Your task to perform on an android device: empty trash in google photos Image 0: 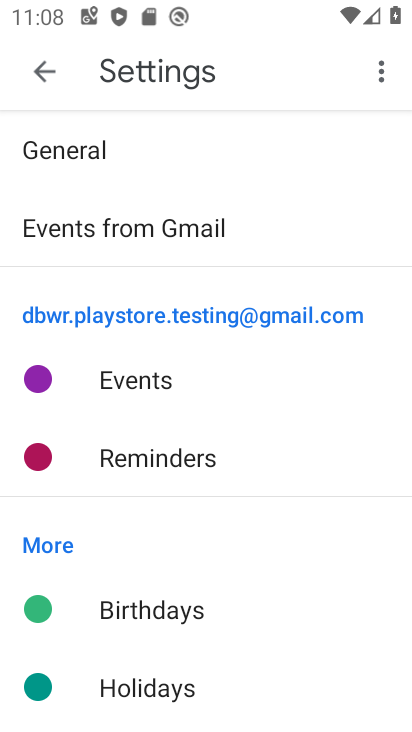
Step 0: press back button
Your task to perform on an android device: empty trash in google photos Image 1: 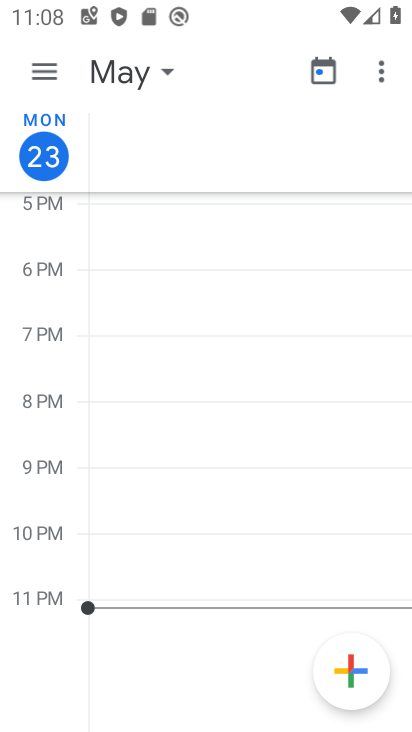
Step 1: press home button
Your task to perform on an android device: empty trash in google photos Image 2: 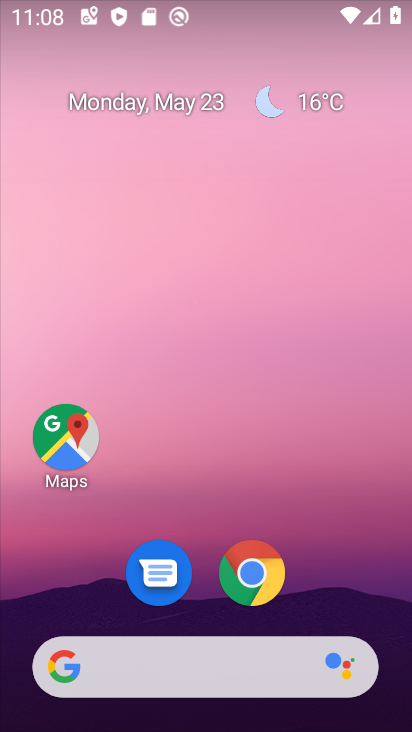
Step 2: drag from (328, 573) to (242, 1)
Your task to perform on an android device: empty trash in google photos Image 3: 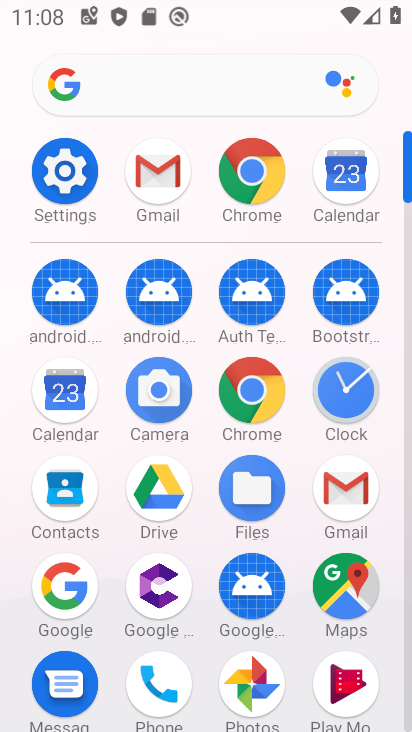
Step 3: drag from (6, 543) to (11, 152)
Your task to perform on an android device: empty trash in google photos Image 4: 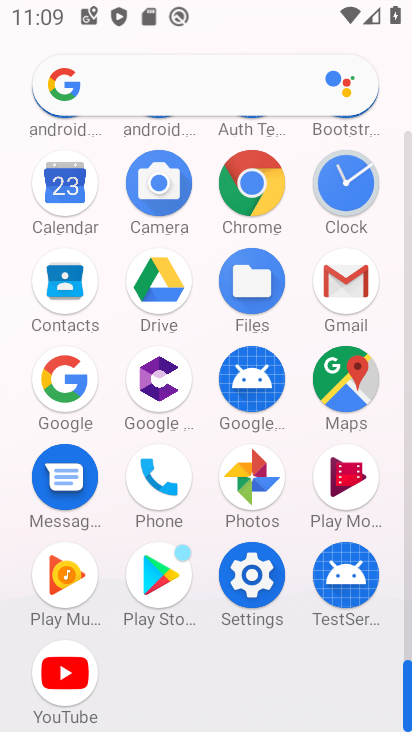
Step 4: click (255, 482)
Your task to perform on an android device: empty trash in google photos Image 5: 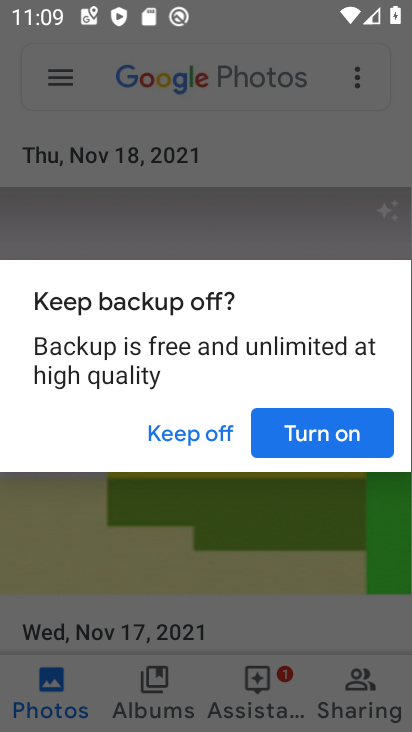
Step 5: click (285, 427)
Your task to perform on an android device: empty trash in google photos Image 6: 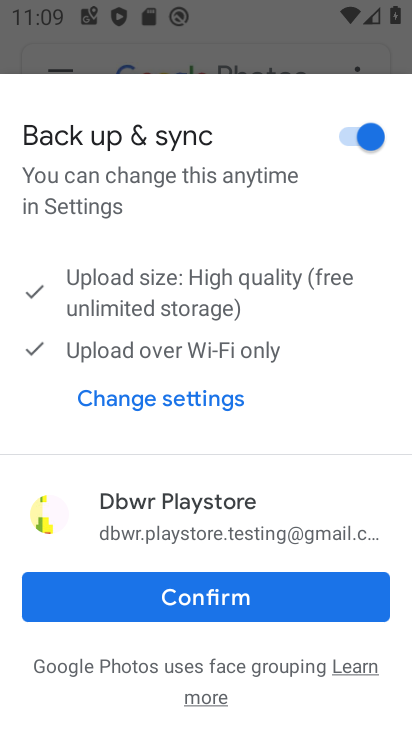
Step 6: click (277, 576)
Your task to perform on an android device: empty trash in google photos Image 7: 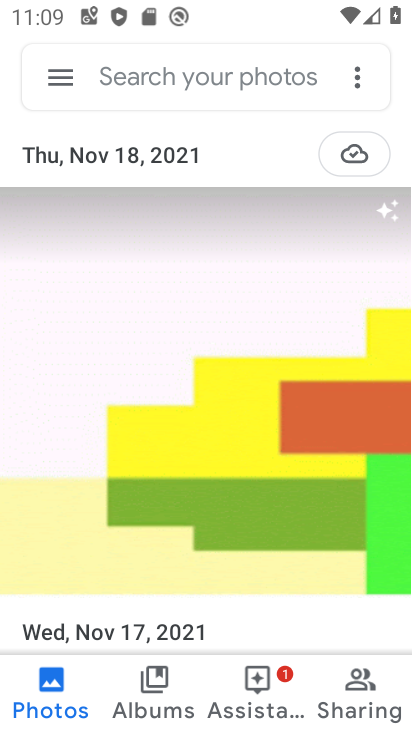
Step 7: click (58, 92)
Your task to perform on an android device: empty trash in google photos Image 8: 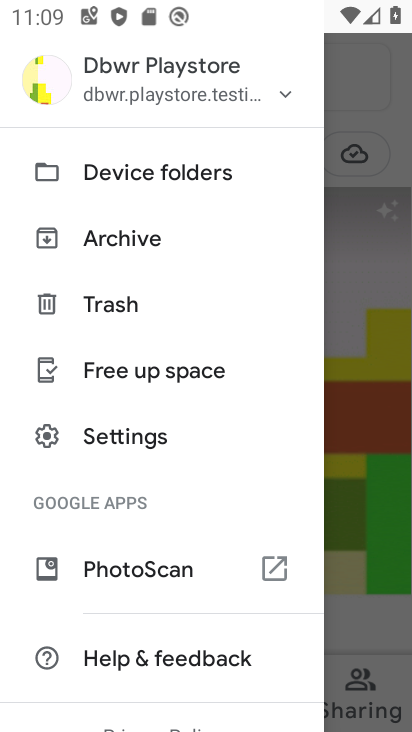
Step 8: click (133, 294)
Your task to perform on an android device: empty trash in google photos Image 9: 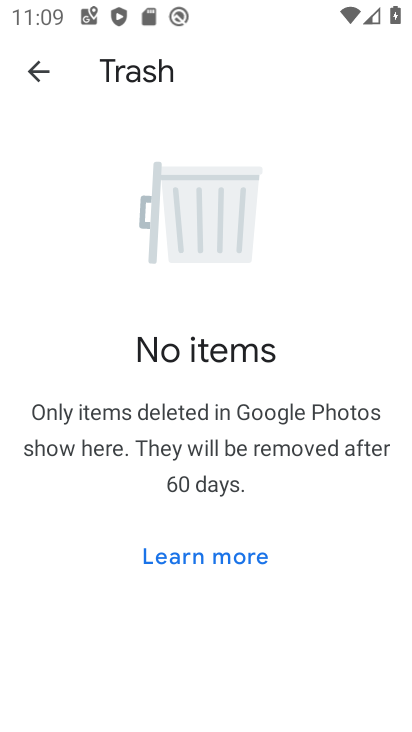
Step 9: task complete